Your task to perform on an android device: Go to location settings Image 0: 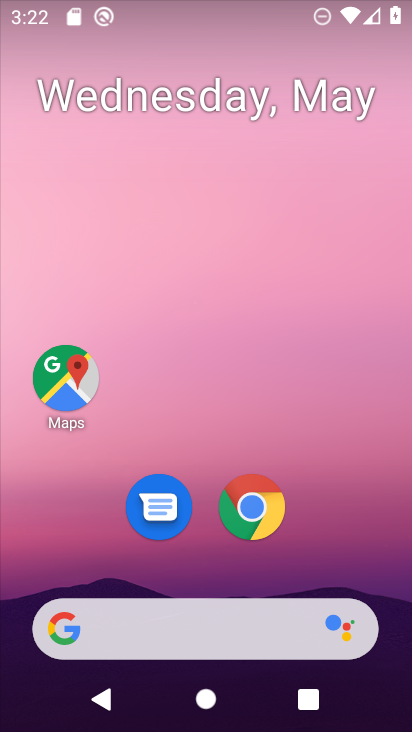
Step 0: drag from (215, 569) to (223, 52)
Your task to perform on an android device: Go to location settings Image 1: 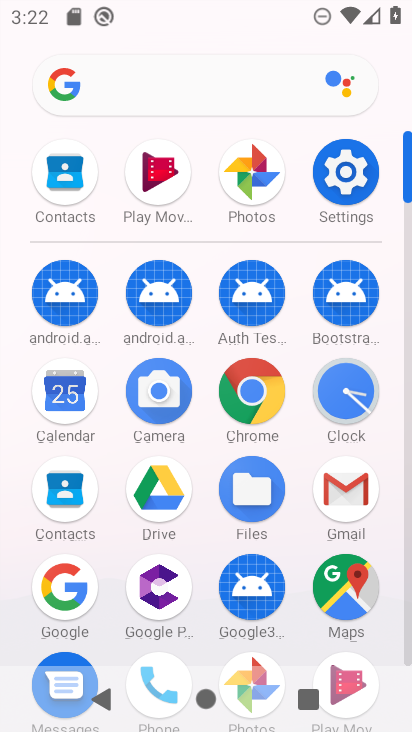
Step 1: click (357, 182)
Your task to perform on an android device: Go to location settings Image 2: 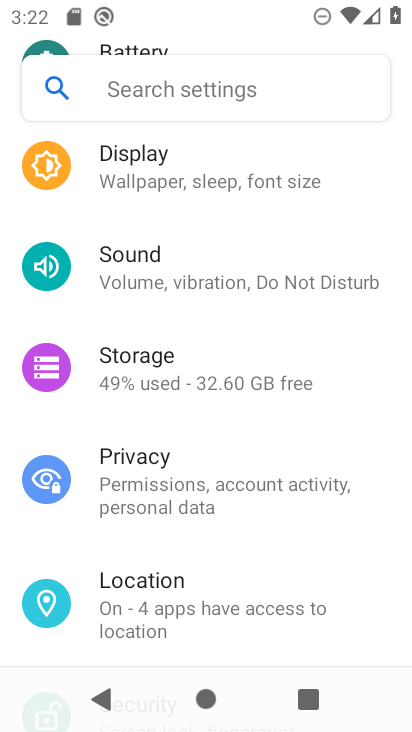
Step 2: click (186, 606)
Your task to perform on an android device: Go to location settings Image 3: 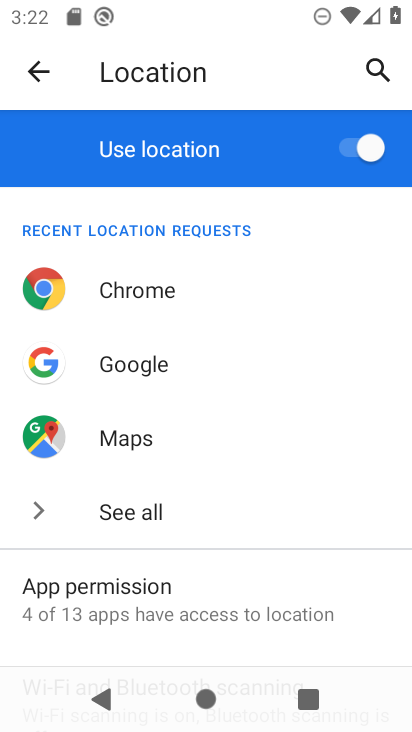
Step 3: task complete